Your task to perform on an android device: Empty the shopping cart on walmart.com. Image 0: 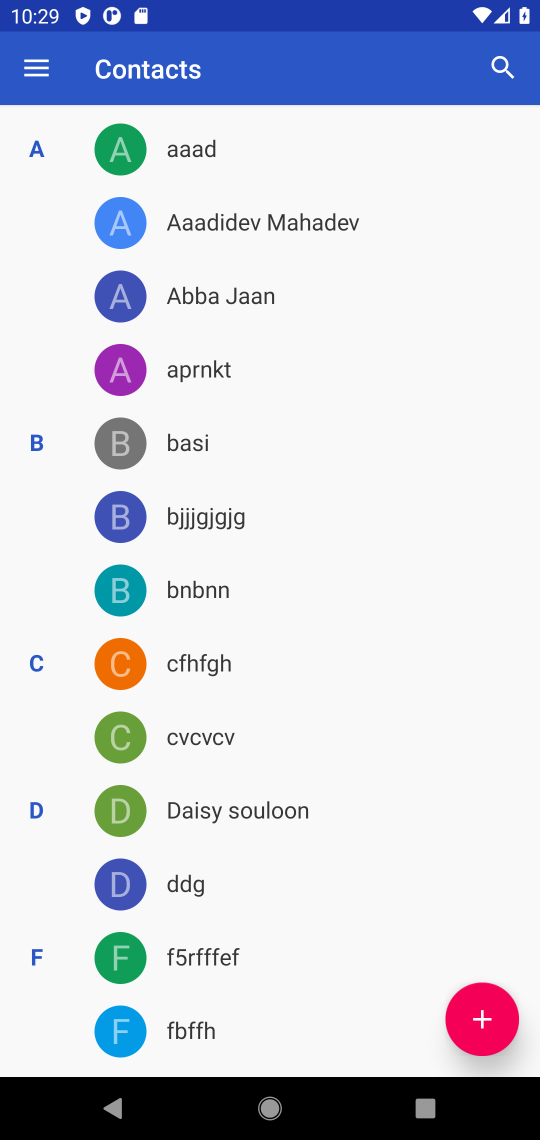
Step 0: press home button
Your task to perform on an android device: Empty the shopping cart on walmart.com. Image 1: 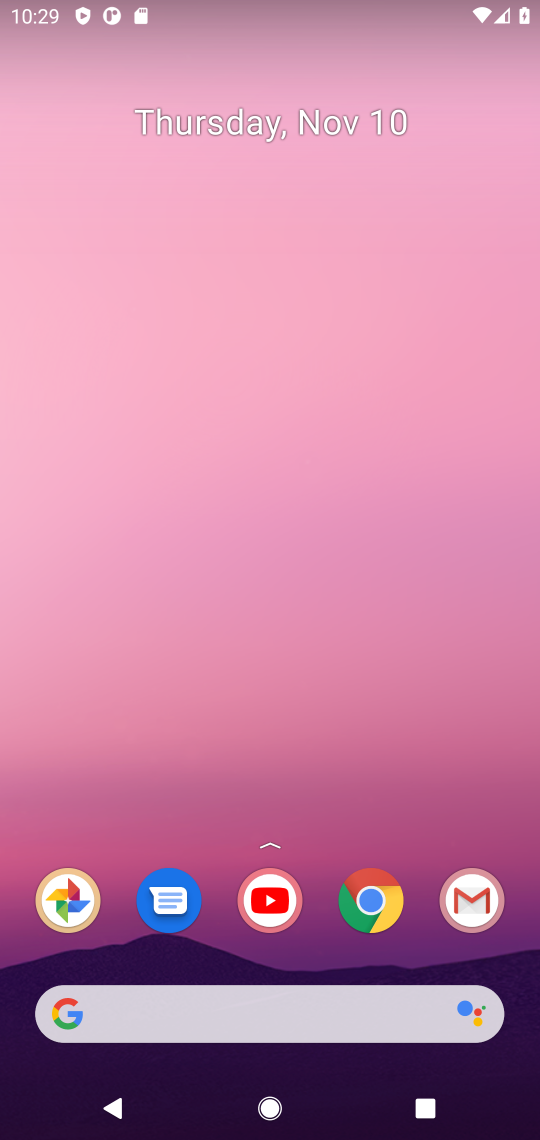
Step 1: click (369, 906)
Your task to perform on an android device: Empty the shopping cart on walmart.com. Image 2: 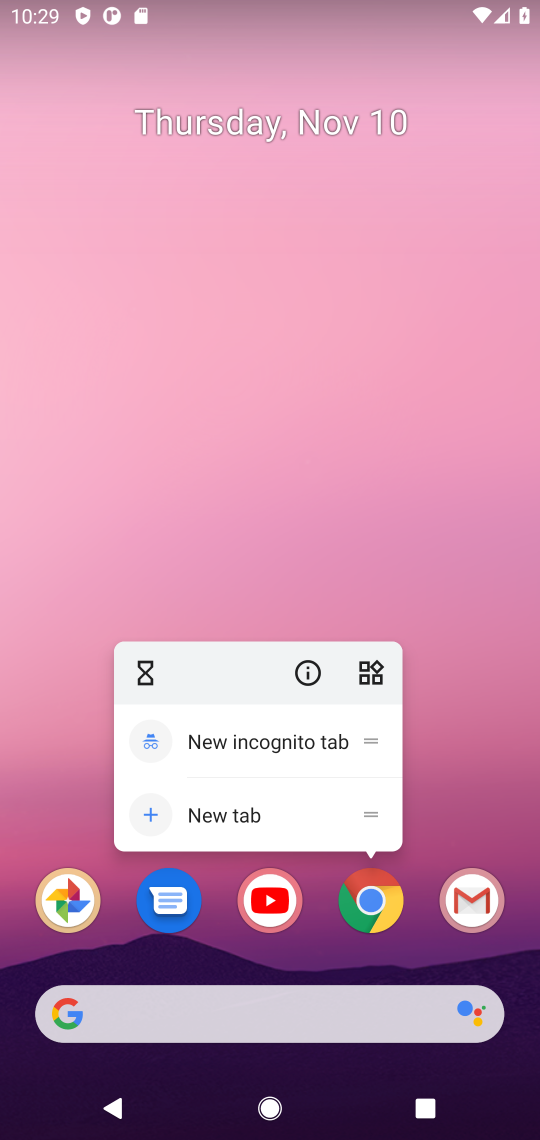
Step 2: click (366, 910)
Your task to perform on an android device: Empty the shopping cart on walmart.com. Image 3: 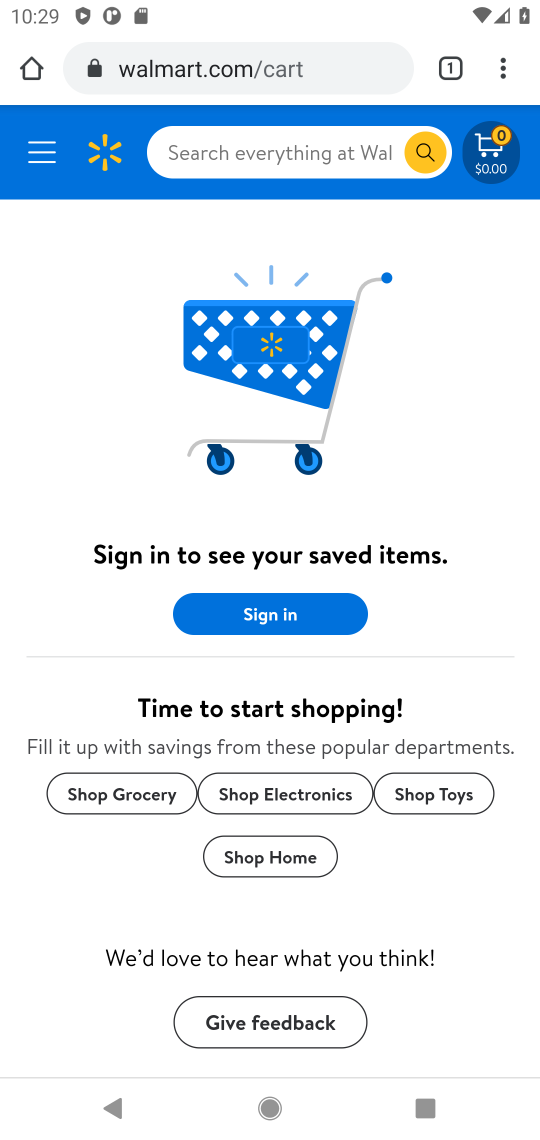
Step 3: task complete